Your task to perform on an android device: make emails show in primary in the gmail app Image 0: 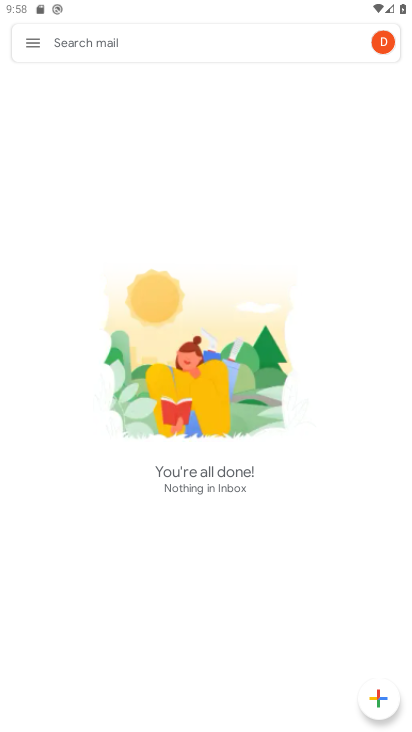
Step 0: click (32, 45)
Your task to perform on an android device: make emails show in primary in the gmail app Image 1: 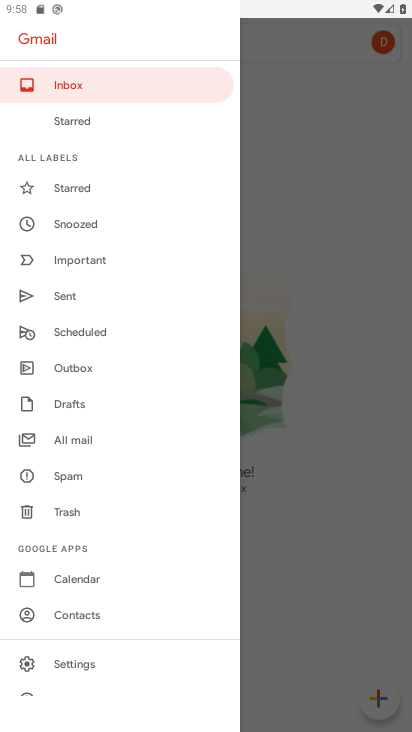
Step 1: drag from (88, 538) to (117, 453)
Your task to perform on an android device: make emails show in primary in the gmail app Image 2: 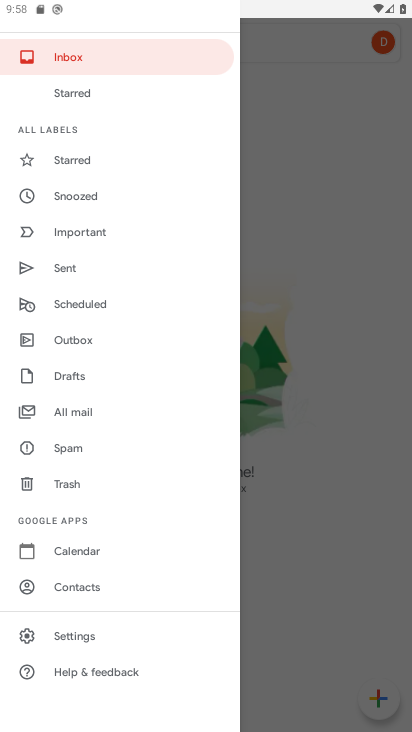
Step 2: click (73, 633)
Your task to perform on an android device: make emails show in primary in the gmail app Image 3: 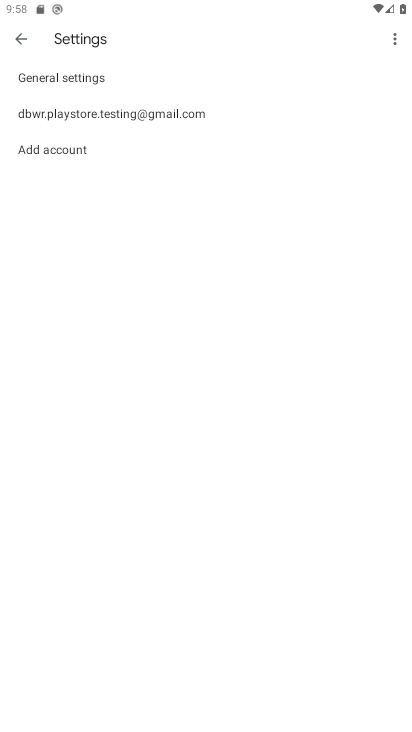
Step 3: click (86, 640)
Your task to perform on an android device: make emails show in primary in the gmail app Image 4: 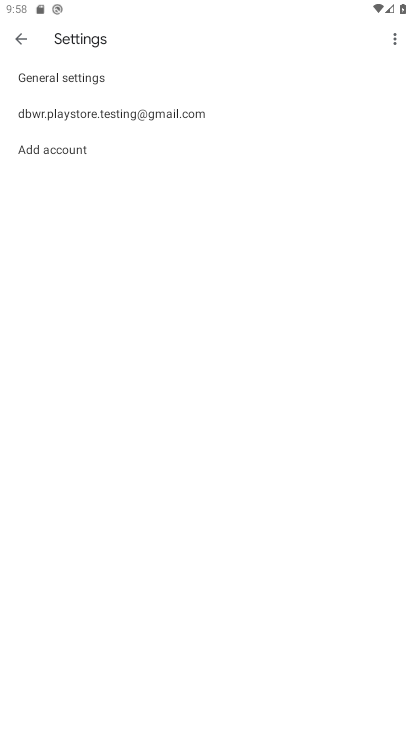
Step 4: click (69, 109)
Your task to perform on an android device: make emails show in primary in the gmail app Image 5: 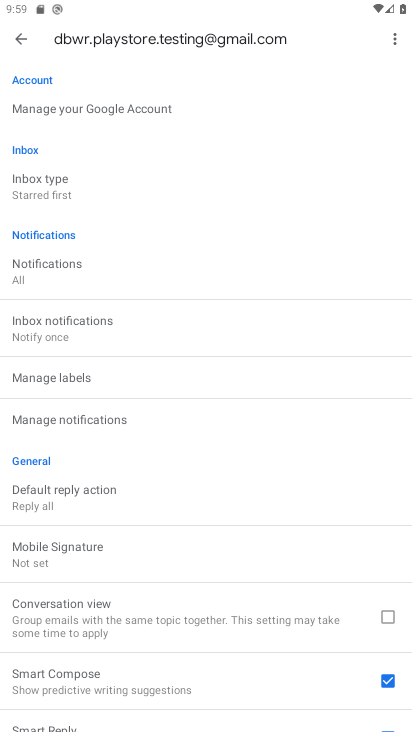
Step 5: click (60, 185)
Your task to perform on an android device: make emails show in primary in the gmail app Image 6: 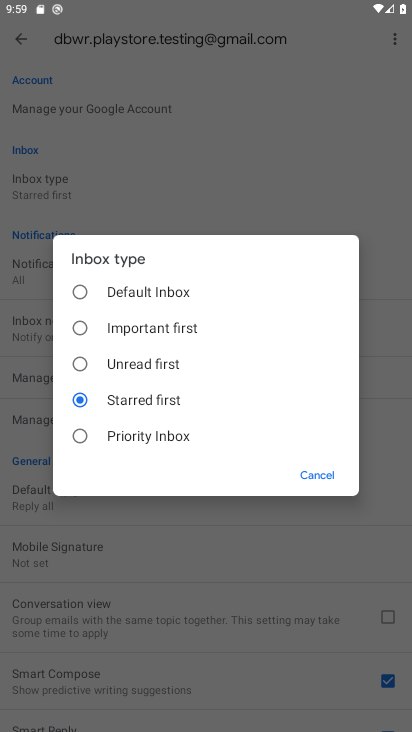
Step 6: click (85, 291)
Your task to perform on an android device: make emails show in primary in the gmail app Image 7: 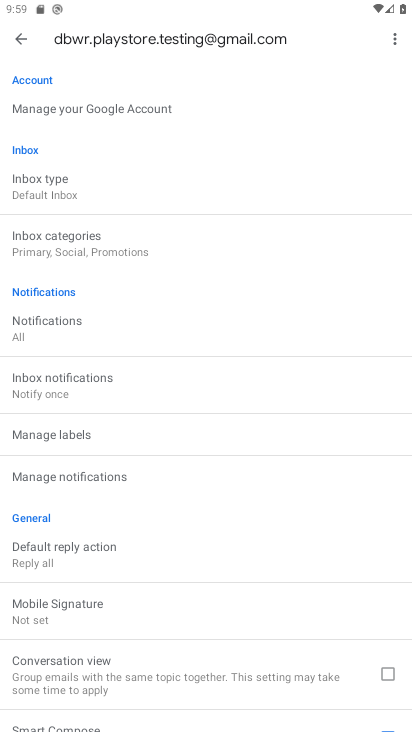
Step 7: click (99, 244)
Your task to perform on an android device: make emails show in primary in the gmail app Image 8: 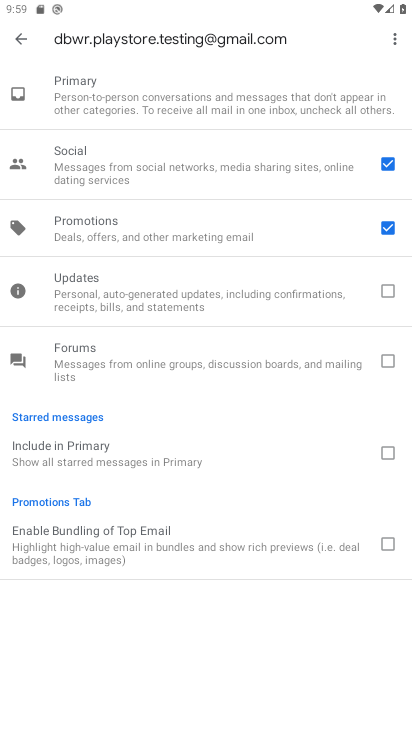
Step 8: click (382, 158)
Your task to perform on an android device: make emails show in primary in the gmail app Image 9: 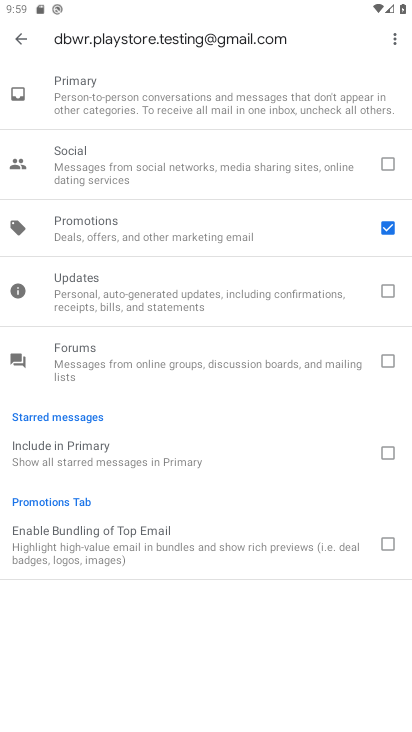
Step 9: click (391, 234)
Your task to perform on an android device: make emails show in primary in the gmail app Image 10: 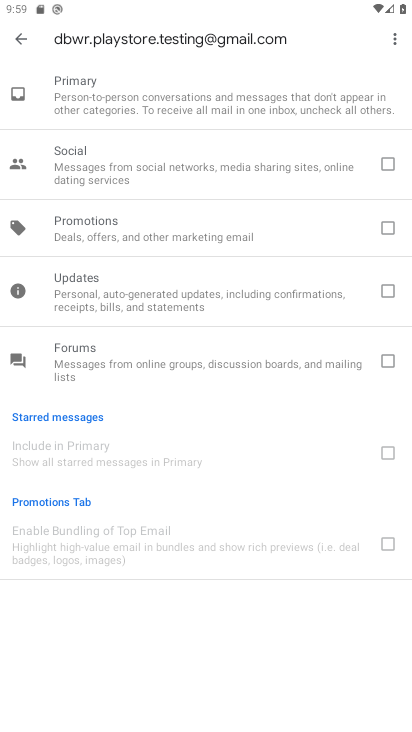
Step 10: task complete